Your task to perform on an android device: change alarm snooze length Image 0: 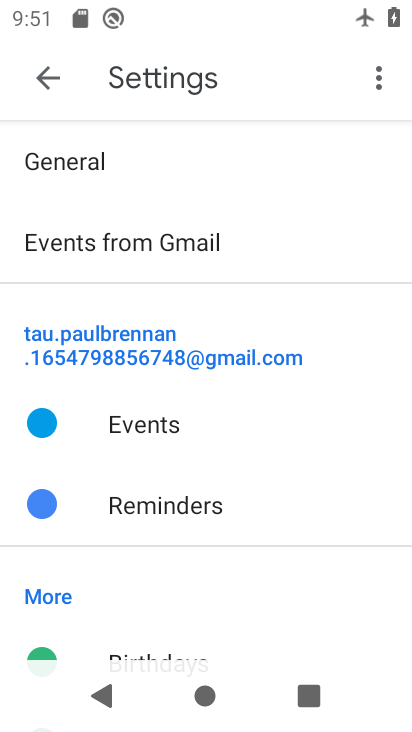
Step 0: press home button
Your task to perform on an android device: change alarm snooze length Image 1: 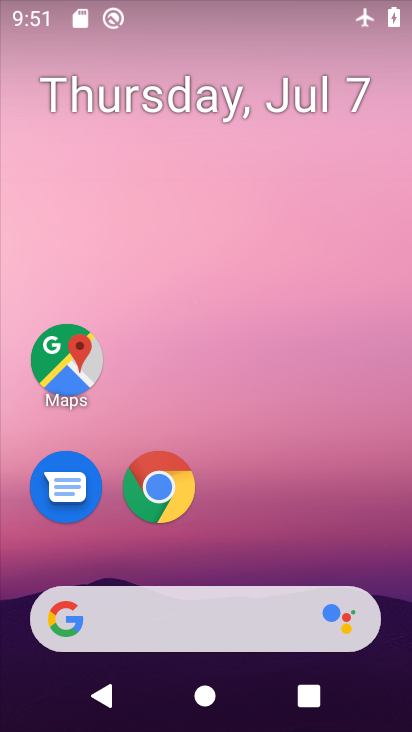
Step 1: drag from (359, 531) to (365, 80)
Your task to perform on an android device: change alarm snooze length Image 2: 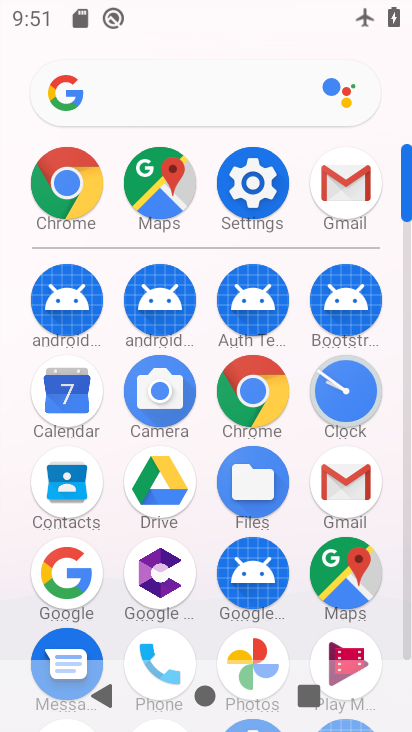
Step 2: click (349, 395)
Your task to perform on an android device: change alarm snooze length Image 3: 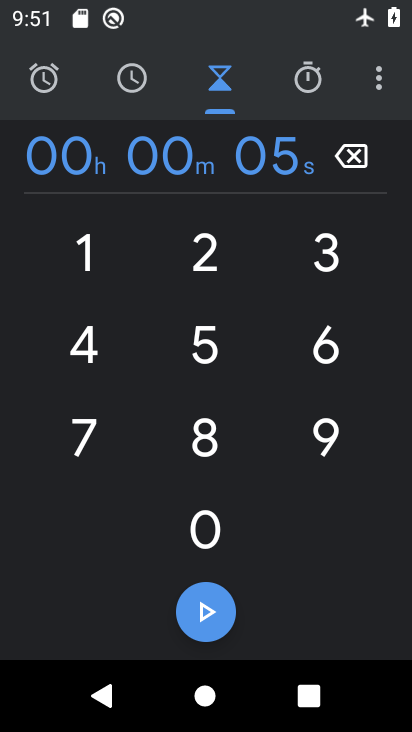
Step 3: click (381, 93)
Your task to perform on an android device: change alarm snooze length Image 4: 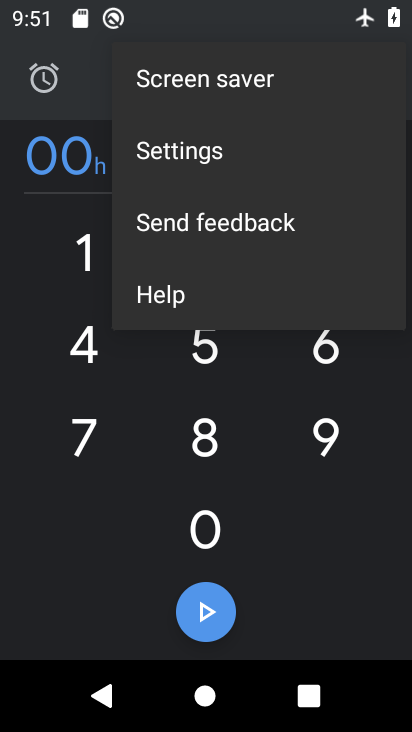
Step 4: click (283, 162)
Your task to perform on an android device: change alarm snooze length Image 5: 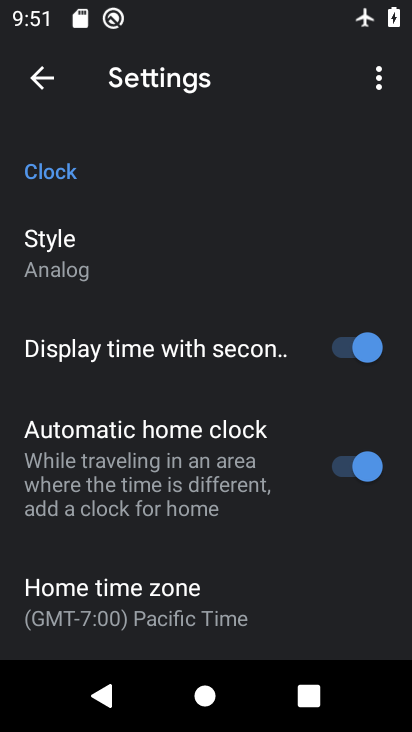
Step 5: drag from (322, 395) to (328, 325)
Your task to perform on an android device: change alarm snooze length Image 6: 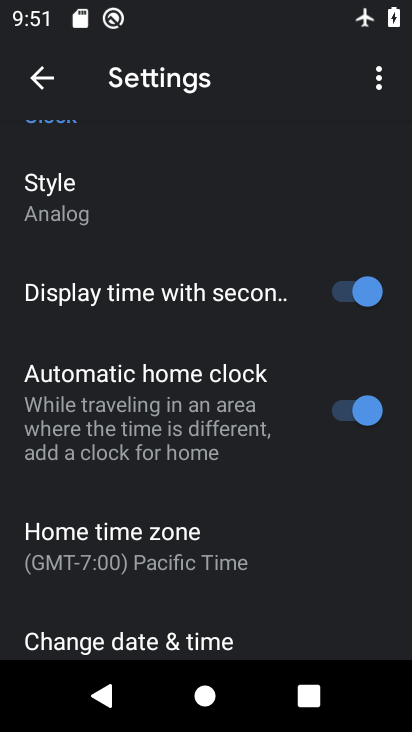
Step 6: drag from (292, 471) to (295, 387)
Your task to perform on an android device: change alarm snooze length Image 7: 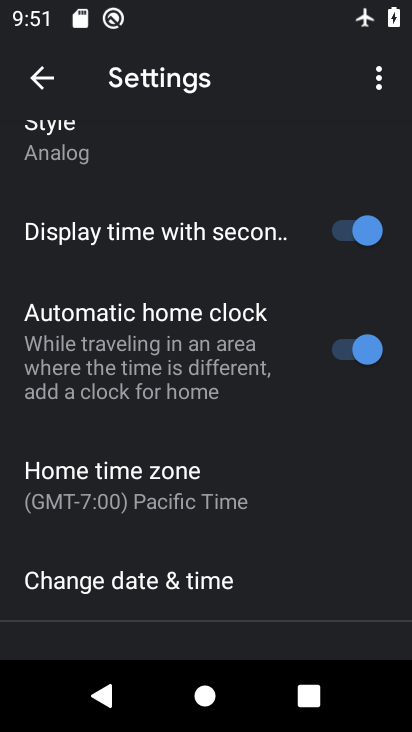
Step 7: drag from (291, 481) to (306, 396)
Your task to perform on an android device: change alarm snooze length Image 8: 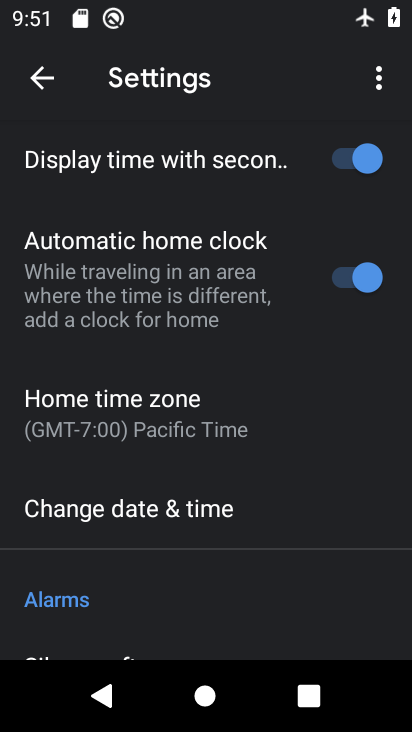
Step 8: drag from (296, 492) to (302, 387)
Your task to perform on an android device: change alarm snooze length Image 9: 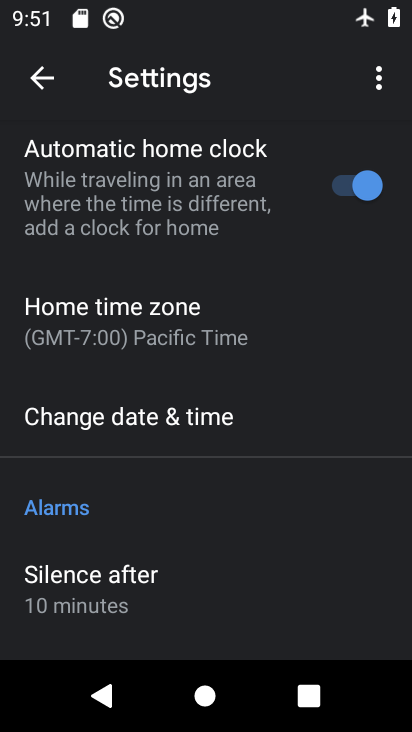
Step 9: drag from (307, 496) to (306, 370)
Your task to perform on an android device: change alarm snooze length Image 10: 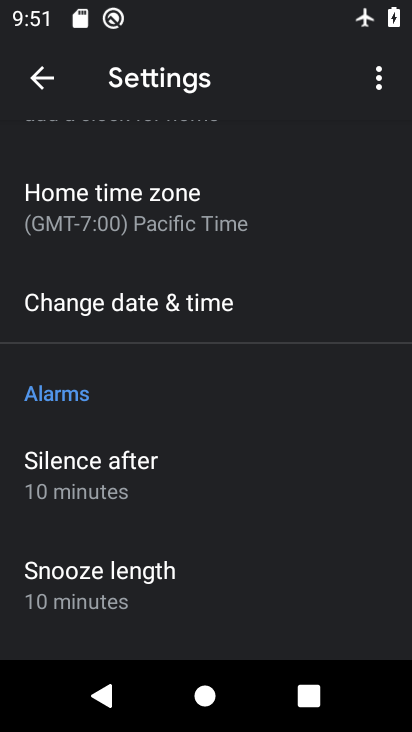
Step 10: drag from (308, 526) to (319, 425)
Your task to perform on an android device: change alarm snooze length Image 11: 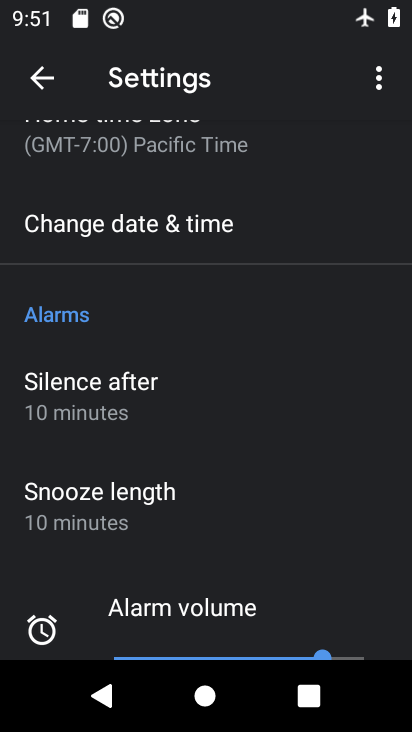
Step 11: drag from (306, 515) to (317, 408)
Your task to perform on an android device: change alarm snooze length Image 12: 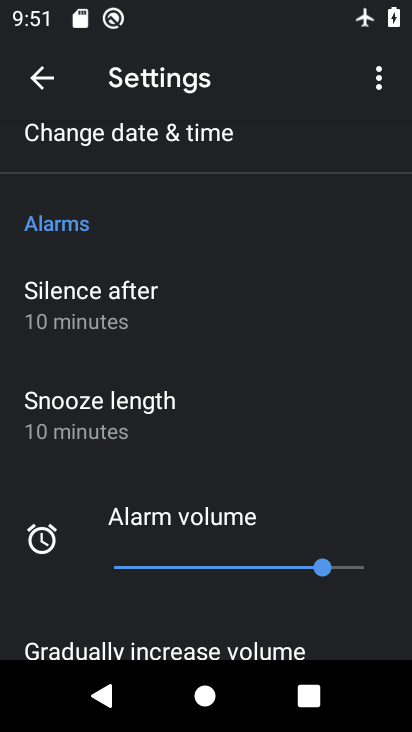
Step 12: drag from (330, 498) to (349, 378)
Your task to perform on an android device: change alarm snooze length Image 13: 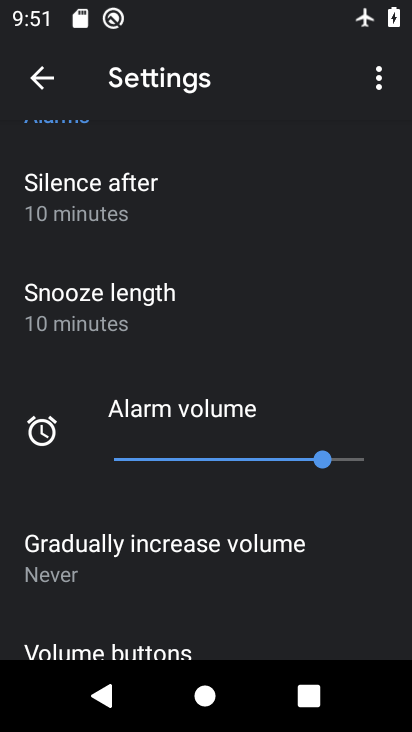
Step 13: click (200, 329)
Your task to perform on an android device: change alarm snooze length Image 14: 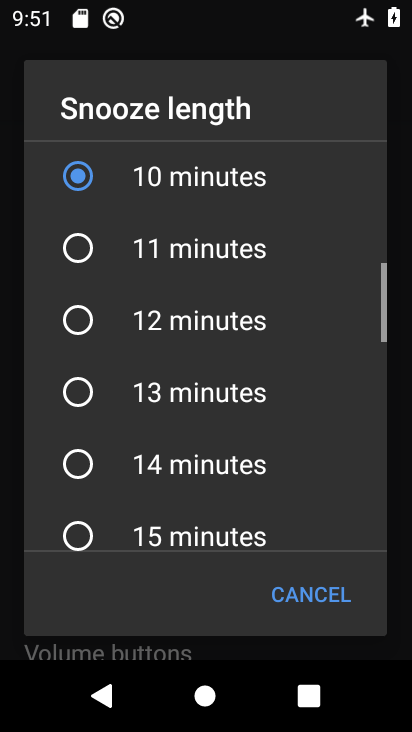
Step 14: click (200, 329)
Your task to perform on an android device: change alarm snooze length Image 15: 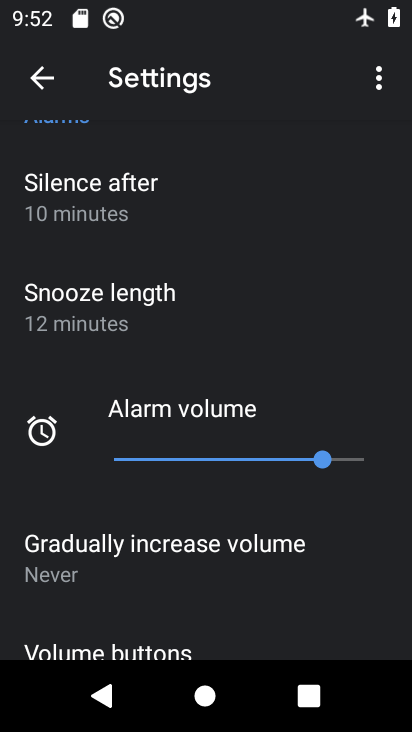
Step 15: task complete